Your task to perform on an android device: open a bookmark in the chrome app Image 0: 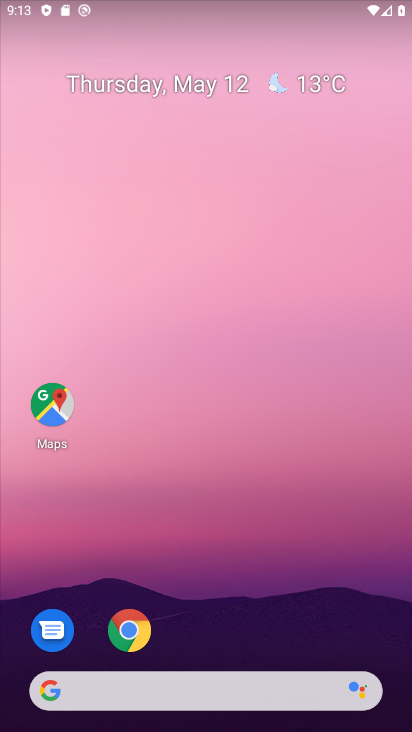
Step 0: click (136, 648)
Your task to perform on an android device: open a bookmark in the chrome app Image 1: 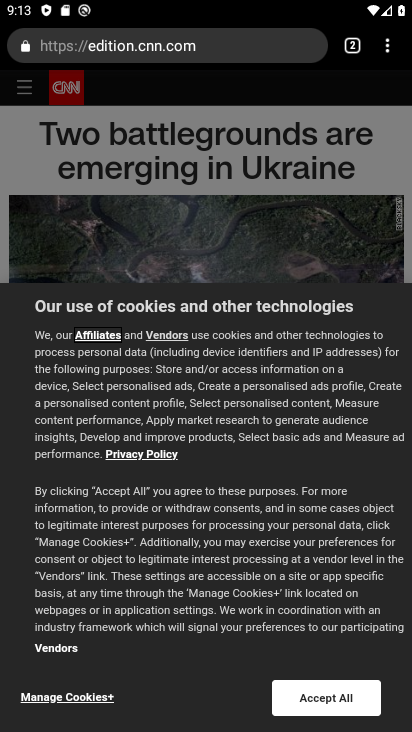
Step 1: drag from (379, 56) to (244, 233)
Your task to perform on an android device: open a bookmark in the chrome app Image 2: 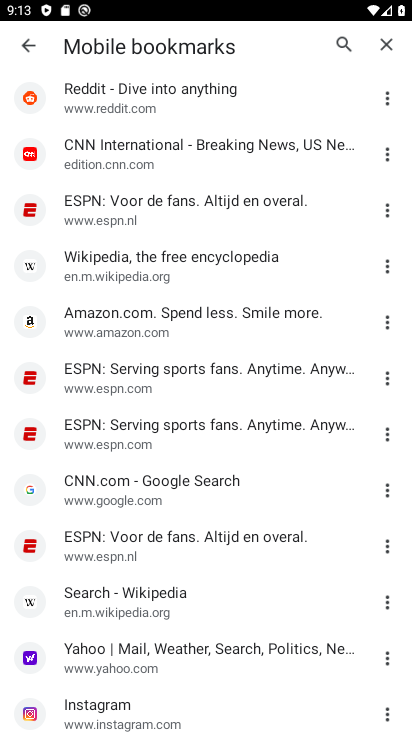
Step 2: click (95, 532)
Your task to perform on an android device: open a bookmark in the chrome app Image 3: 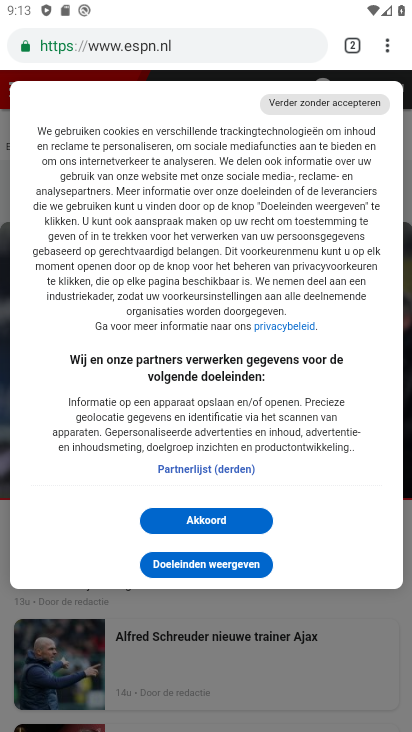
Step 3: task complete